Your task to perform on an android device: toggle wifi Image 0: 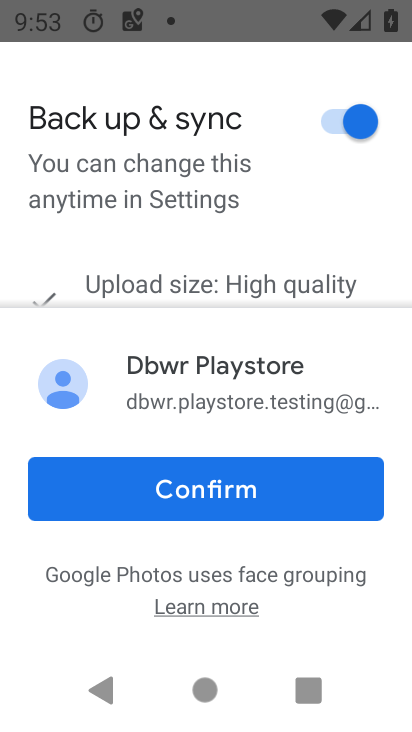
Step 0: press home button
Your task to perform on an android device: toggle wifi Image 1: 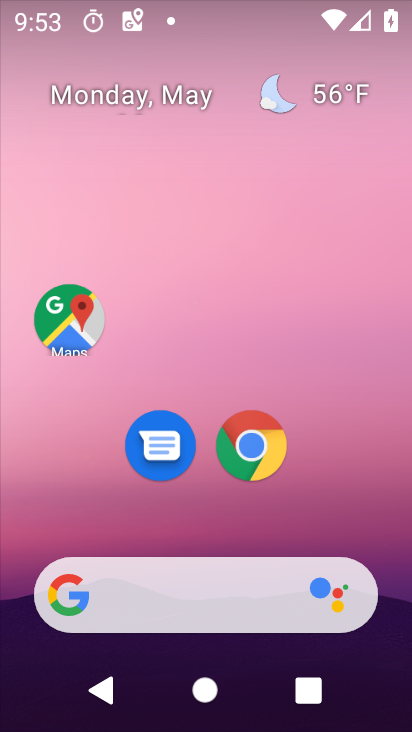
Step 1: drag from (69, 490) to (183, 29)
Your task to perform on an android device: toggle wifi Image 2: 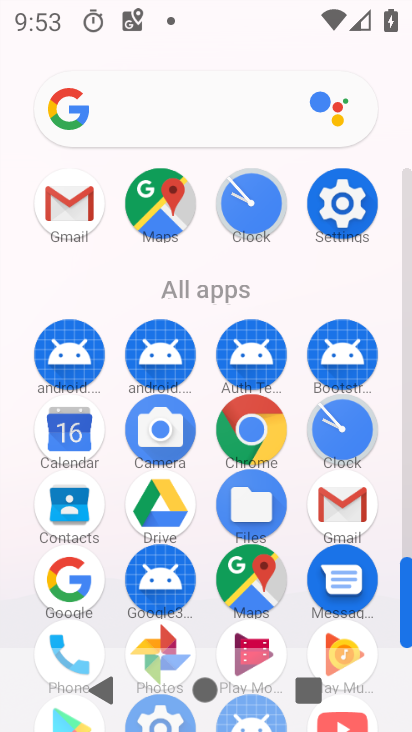
Step 2: drag from (153, 683) to (207, 440)
Your task to perform on an android device: toggle wifi Image 3: 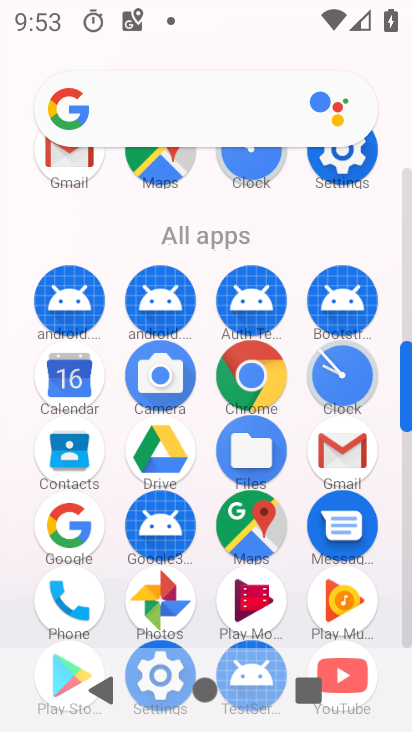
Step 3: click (159, 660)
Your task to perform on an android device: toggle wifi Image 4: 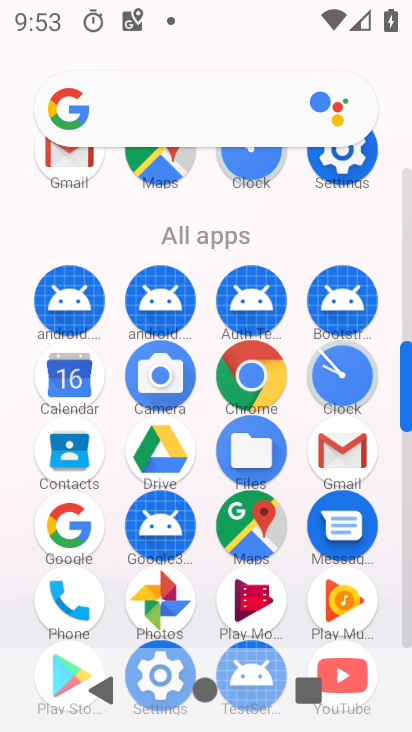
Step 4: click (173, 654)
Your task to perform on an android device: toggle wifi Image 5: 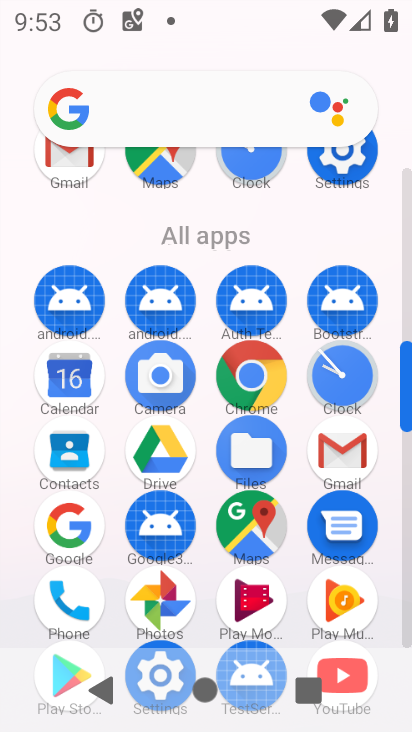
Step 5: drag from (321, 583) to (408, 225)
Your task to perform on an android device: toggle wifi Image 6: 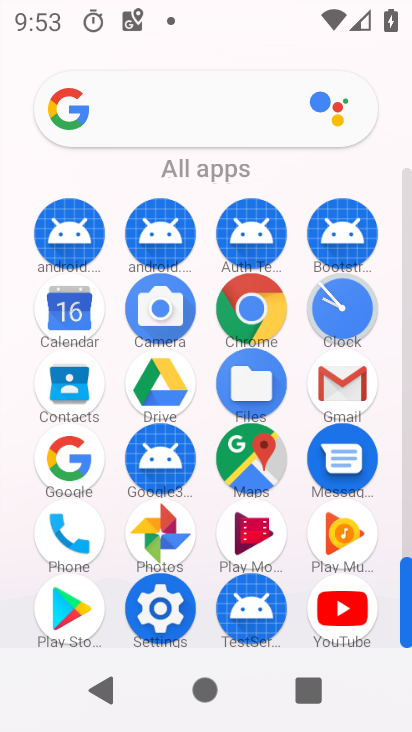
Step 6: click (151, 611)
Your task to perform on an android device: toggle wifi Image 7: 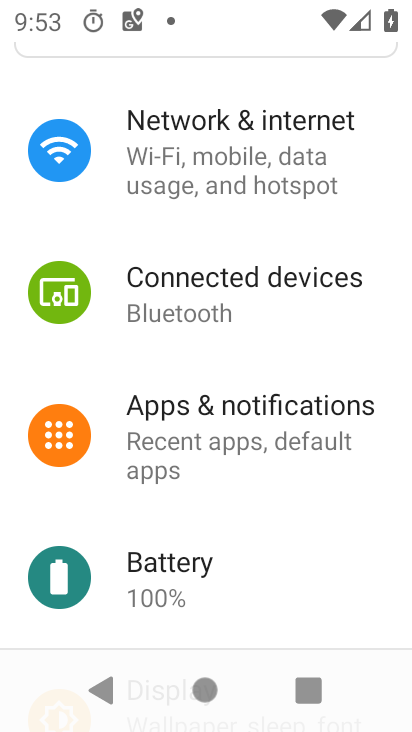
Step 7: click (324, 172)
Your task to perform on an android device: toggle wifi Image 8: 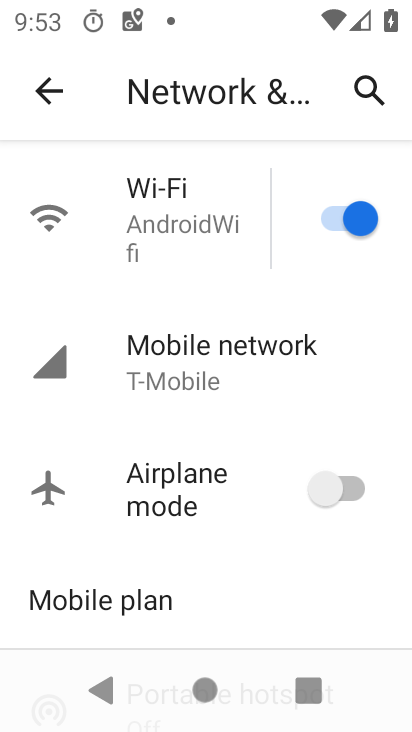
Step 8: click (340, 216)
Your task to perform on an android device: toggle wifi Image 9: 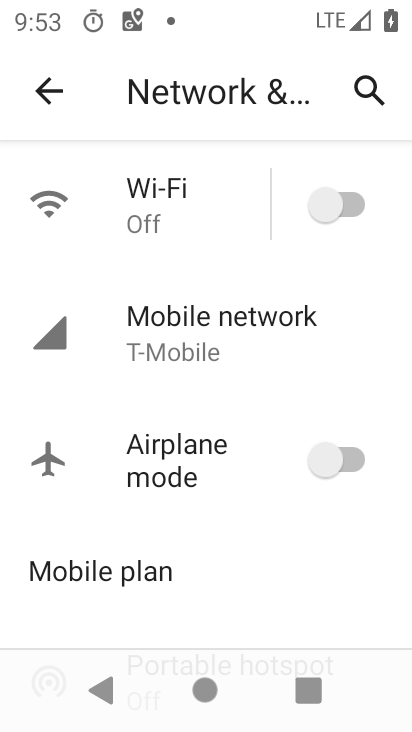
Step 9: task complete